Your task to perform on an android device: Open Google Chrome Image 0: 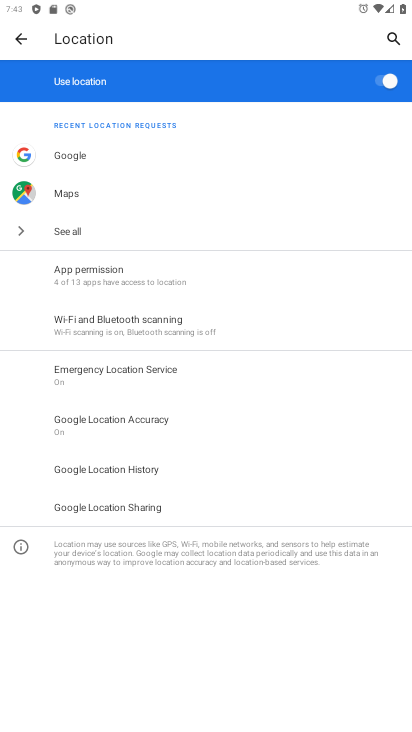
Step 0: press home button
Your task to perform on an android device: Open Google Chrome Image 1: 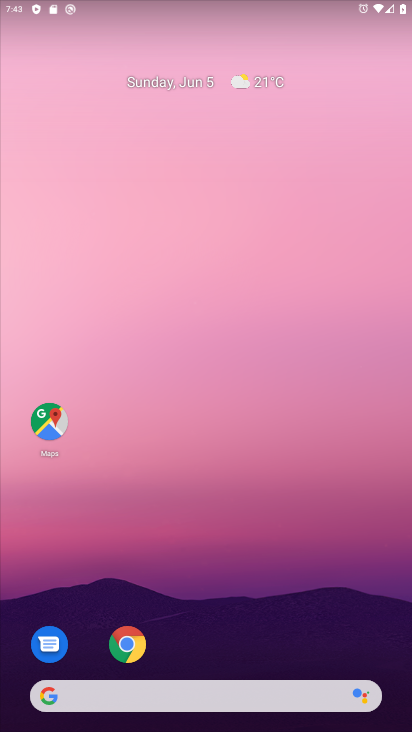
Step 1: click (130, 652)
Your task to perform on an android device: Open Google Chrome Image 2: 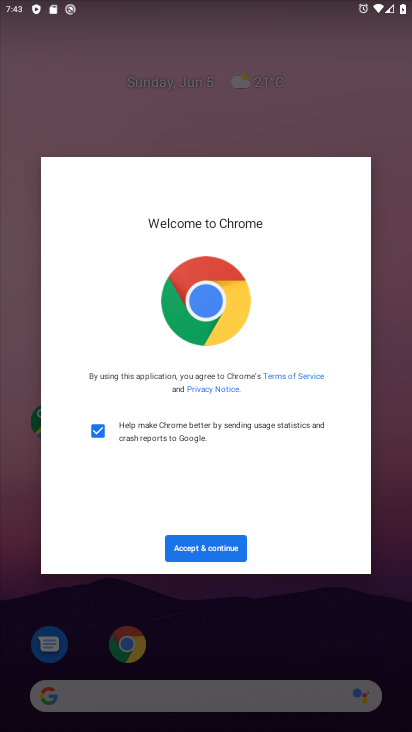
Step 2: click (189, 555)
Your task to perform on an android device: Open Google Chrome Image 3: 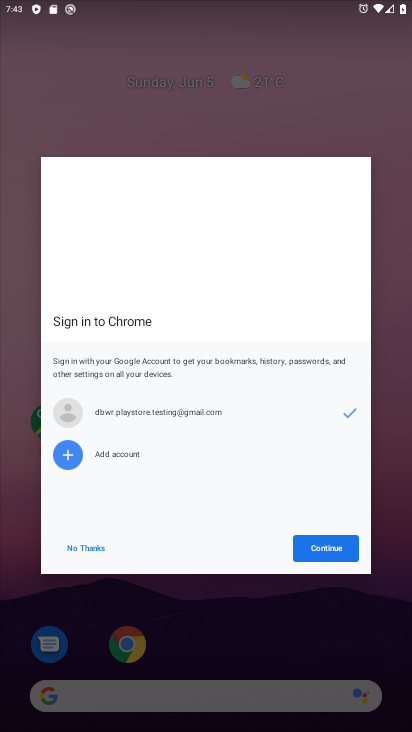
Step 3: click (68, 548)
Your task to perform on an android device: Open Google Chrome Image 4: 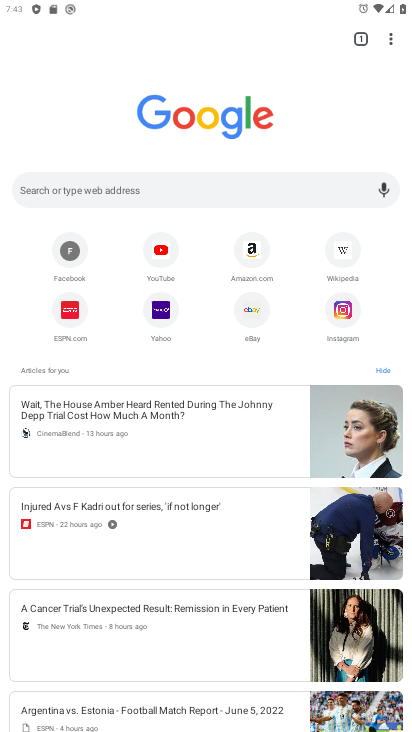
Step 4: task complete